Your task to perform on an android device: Open calendar and show me the third week of next month Image 0: 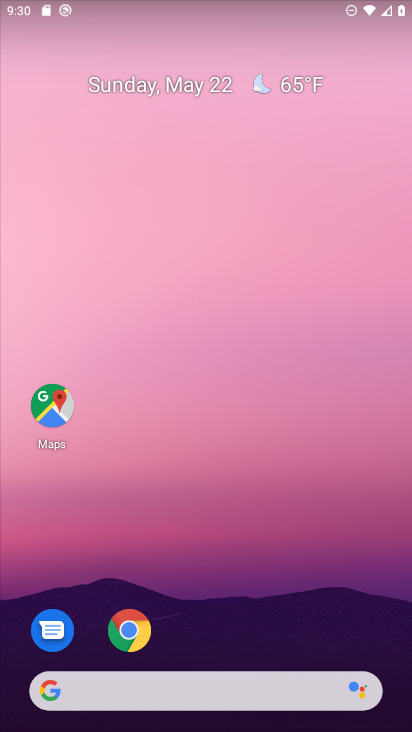
Step 0: drag from (178, 618) to (291, 240)
Your task to perform on an android device: Open calendar and show me the third week of next month Image 1: 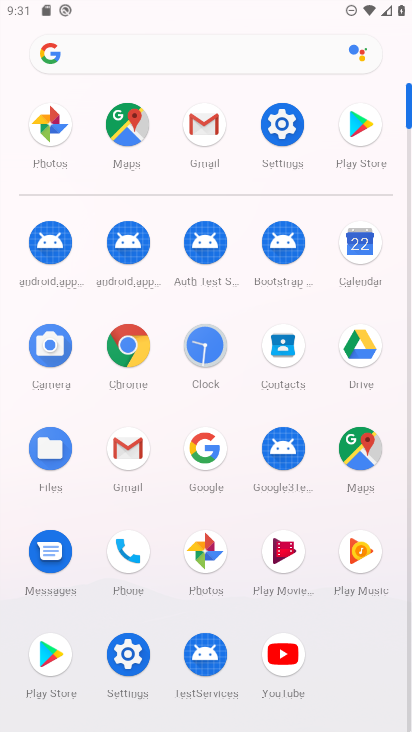
Step 1: click (355, 248)
Your task to perform on an android device: Open calendar and show me the third week of next month Image 2: 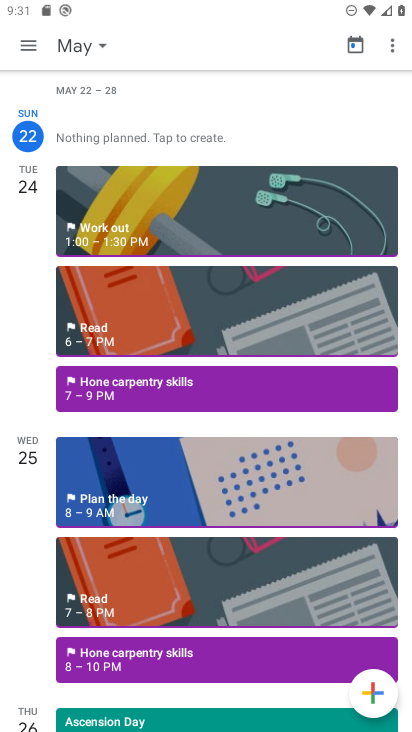
Step 2: click (76, 51)
Your task to perform on an android device: Open calendar and show me the third week of next month Image 3: 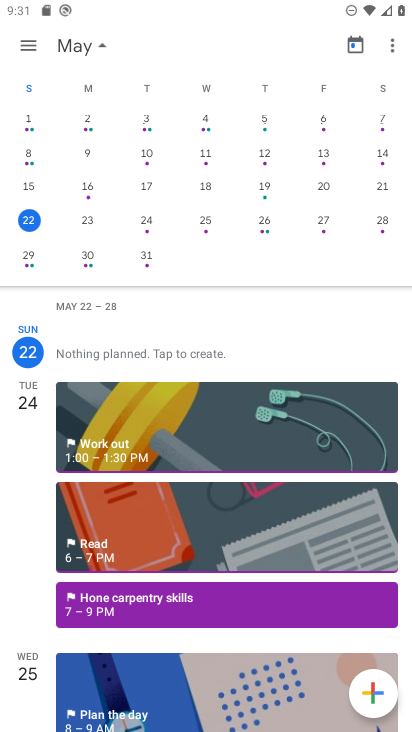
Step 3: drag from (365, 182) to (41, 209)
Your task to perform on an android device: Open calendar and show me the third week of next month Image 4: 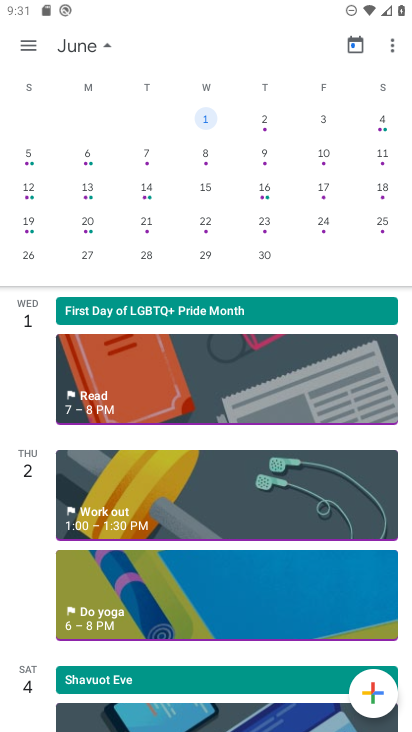
Step 4: click (32, 186)
Your task to perform on an android device: Open calendar and show me the third week of next month Image 5: 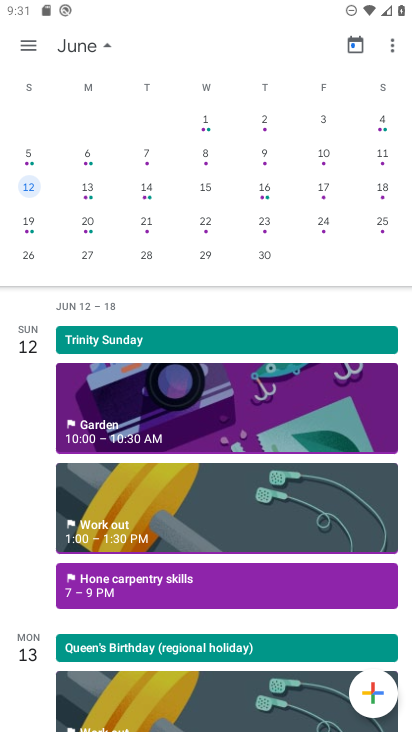
Step 5: click (36, 45)
Your task to perform on an android device: Open calendar and show me the third week of next month Image 6: 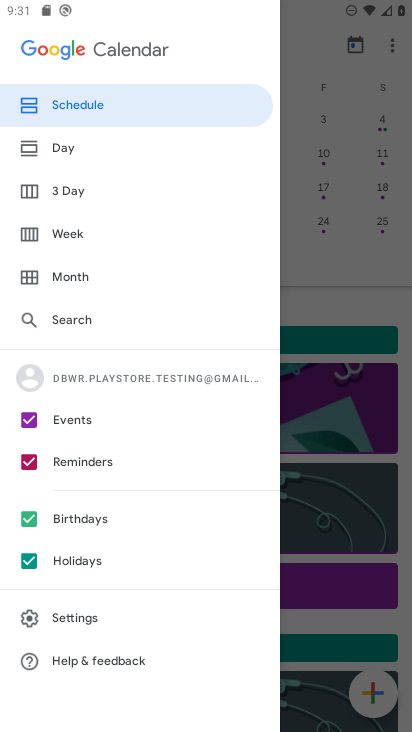
Step 6: click (70, 234)
Your task to perform on an android device: Open calendar and show me the third week of next month Image 7: 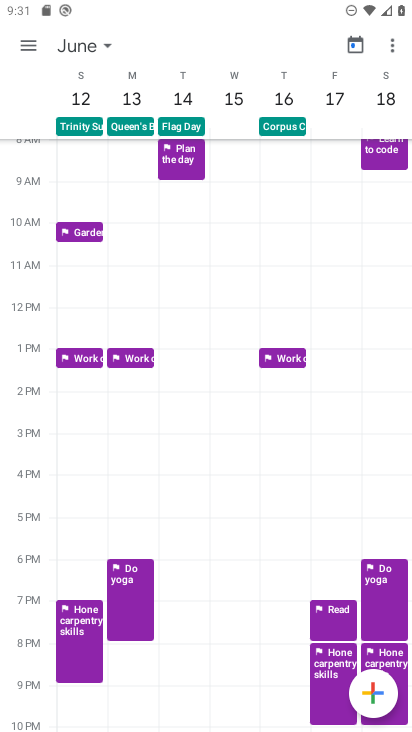
Step 7: task complete